Your task to perform on an android device: Go to Google Image 0: 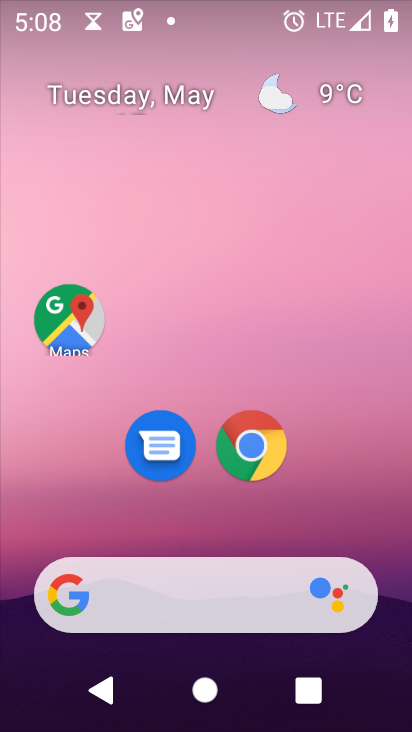
Step 0: drag from (300, 632) to (336, 215)
Your task to perform on an android device: Go to Google Image 1: 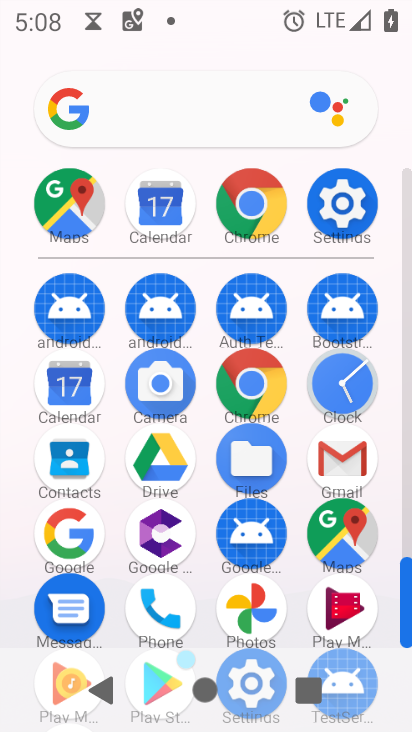
Step 1: click (67, 524)
Your task to perform on an android device: Go to Google Image 2: 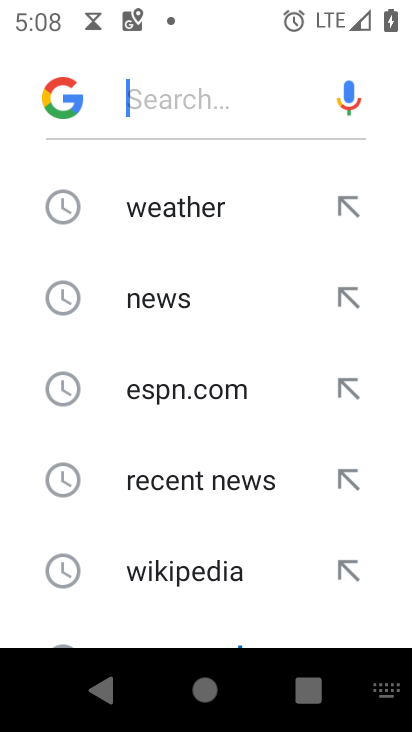
Step 2: press back button
Your task to perform on an android device: Go to Google Image 3: 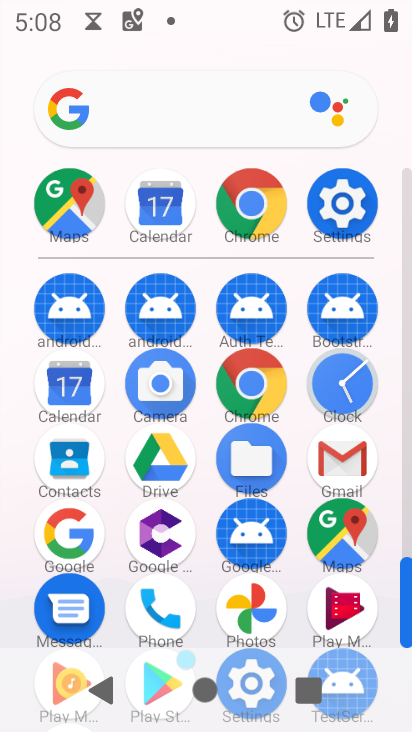
Step 3: click (70, 541)
Your task to perform on an android device: Go to Google Image 4: 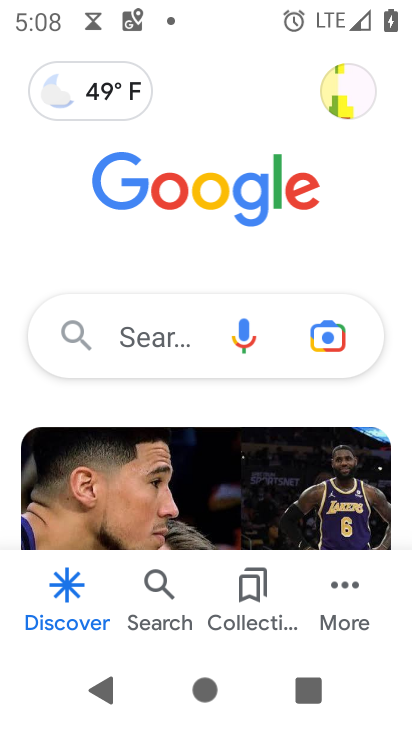
Step 4: click (244, 185)
Your task to perform on an android device: Go to Google Image 5: 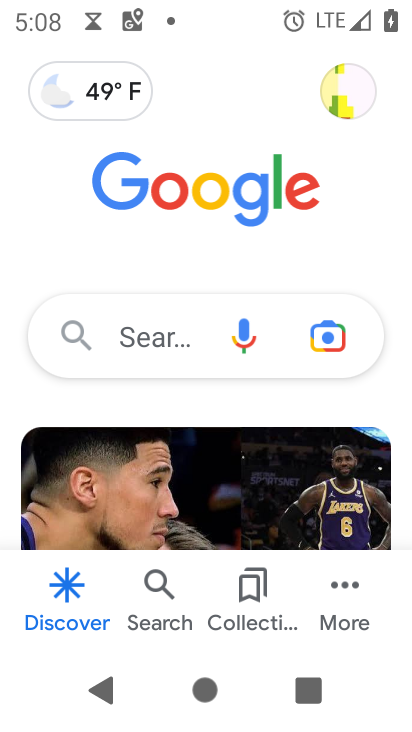
Step 5: task complete